Your task to perform on an android device: turn pop-ups off in chrome Image 0: 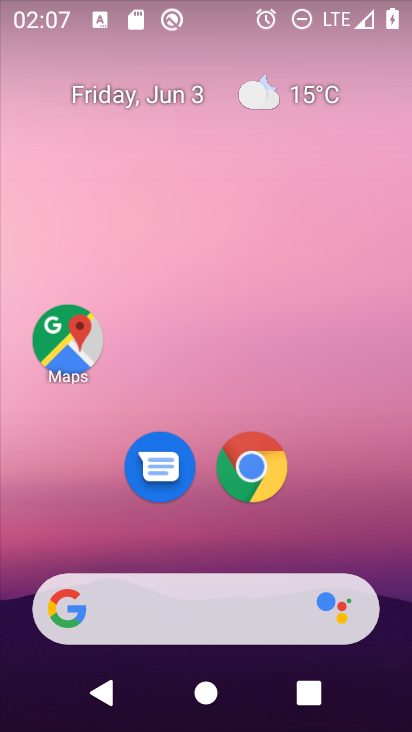
Step 0: click (254, 466)
Your task to perform on an android device: turn pop-ups off in chrome Image 1: 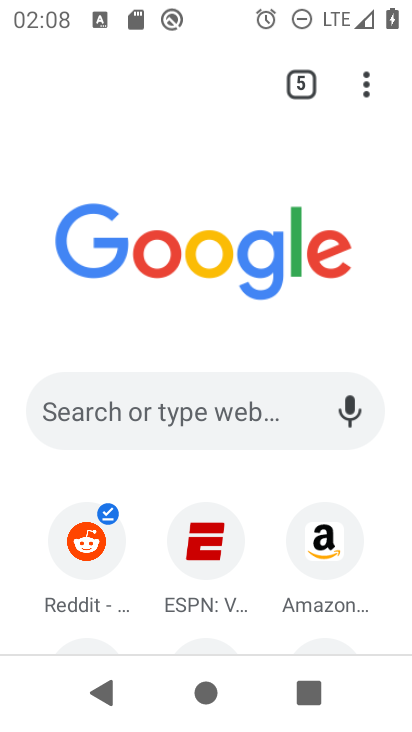
Step 1: click (363, 88)
Your task to perform on an android device: turn pop-ups off in chrome Image 2: 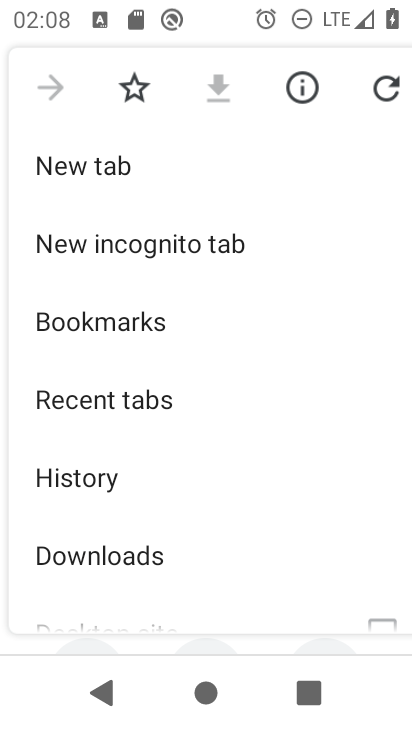
Step 2: drag from (260, 575) to (293, 242)
Your task to perform on an android device: turn pop-ups off in chrome Image 3: 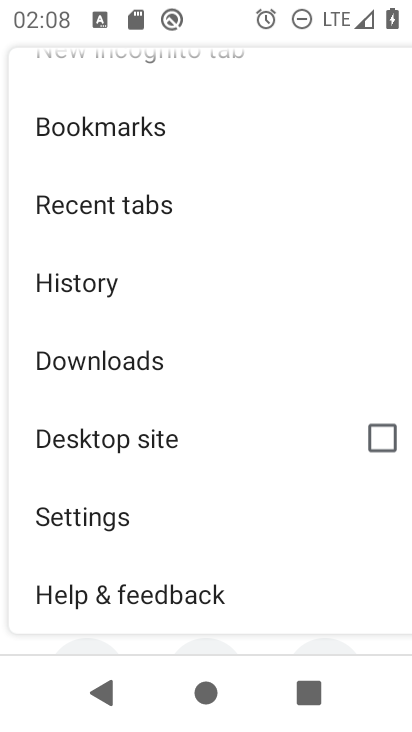
Step 3: click (96, 510)
Your task to perform on an android device: turn pop-ups off in chrome Image 4: 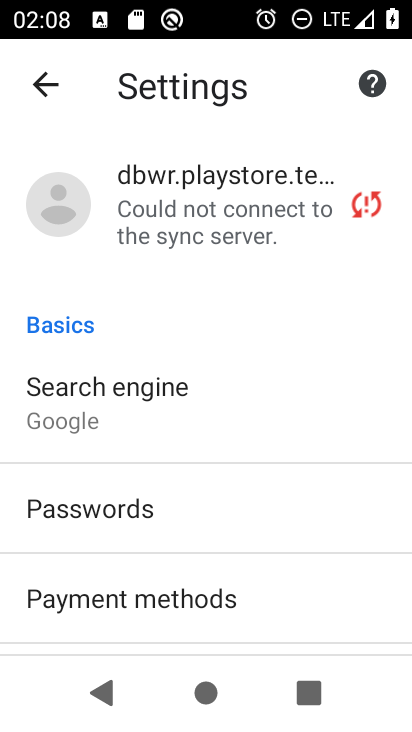
Step 4: drag from (234, 622) to (283, 65)
Your task to perform on an android device: turn pop-ups off in chrome Image 5: 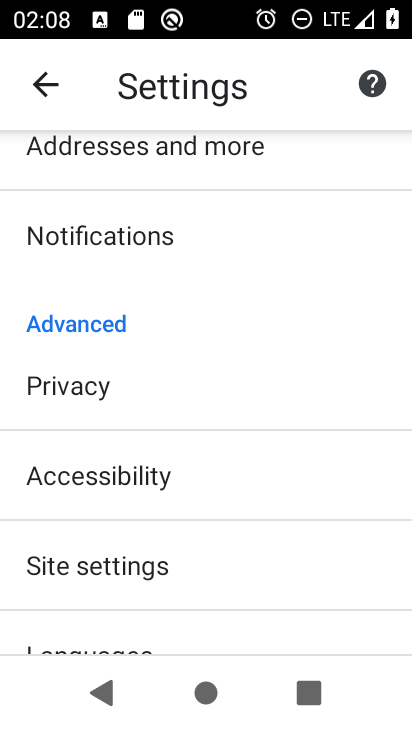
Step 5: click (72, 562)
Your task to perform on an android device: turn pop-ups off in chrome Image 6: 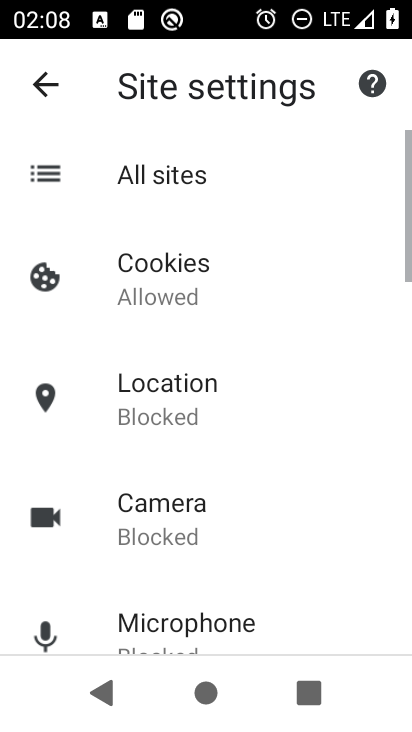
Step 6: drag from (266, 611) to (258, 88)
Your task to perform on an android device: turn pop-ups off in chrome Image 7: 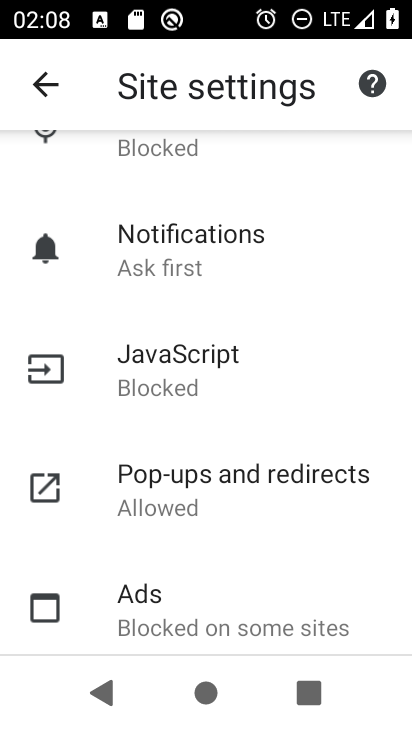
Step 7: click (151, 500)
Your task to perform on an android device: turn pop-ups off in chrome Image 8: 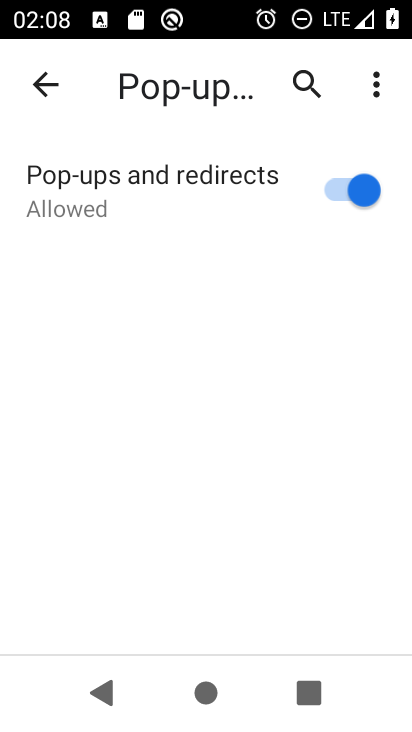
Step 8: click (338, 191)
Your task to perform on an android device: turn pop-ups off in chrome Image 9: 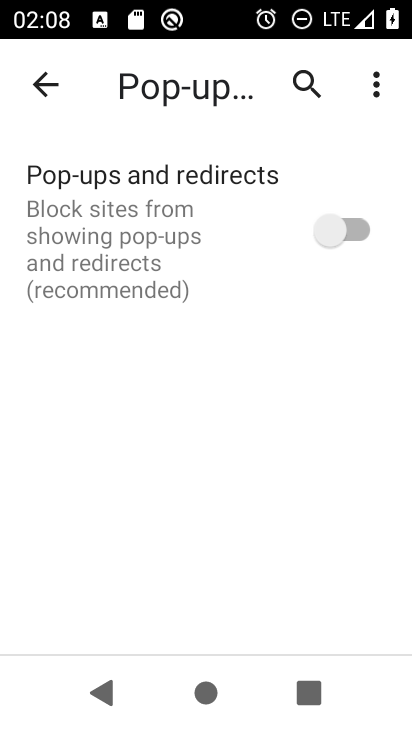
Step 9: task complete